Your task to perform on an android device: Open settings Image 0: 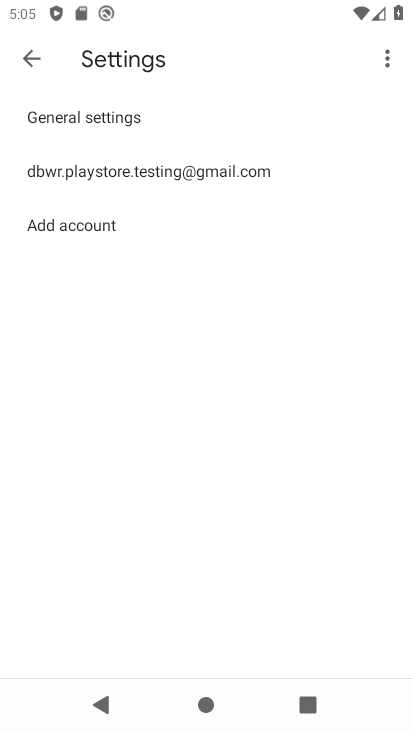
Step 0: press home button
Your task to perform on an android device: Open settings Image 1: 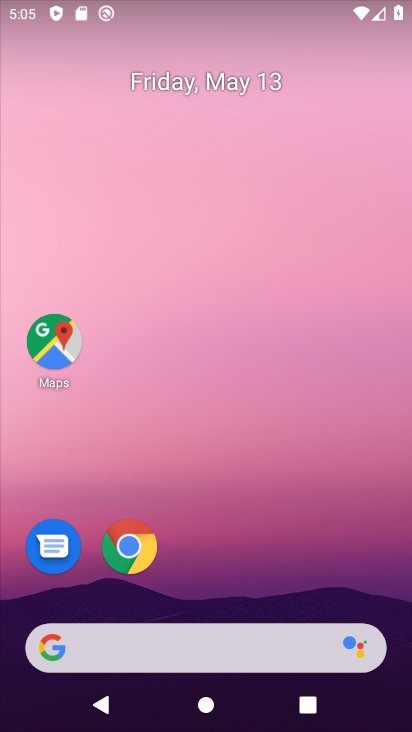
Step 1: drag from (214, 619) to (288, 177)
Your task to perform on an android device: Open settings Image 2: 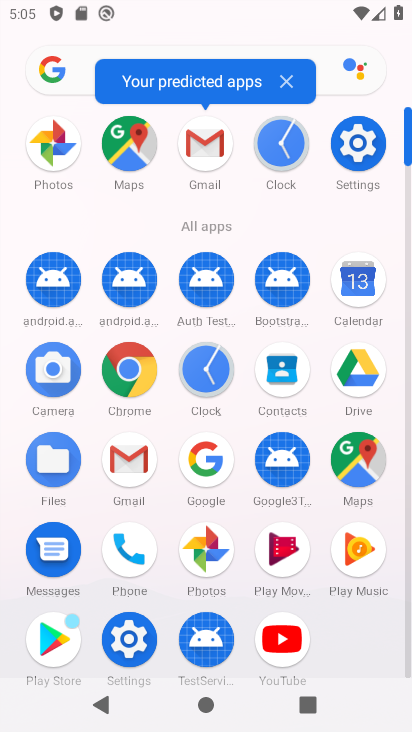
Step 2: click (140, 645)
Your task to perform on an android device: Open settings Image 3: 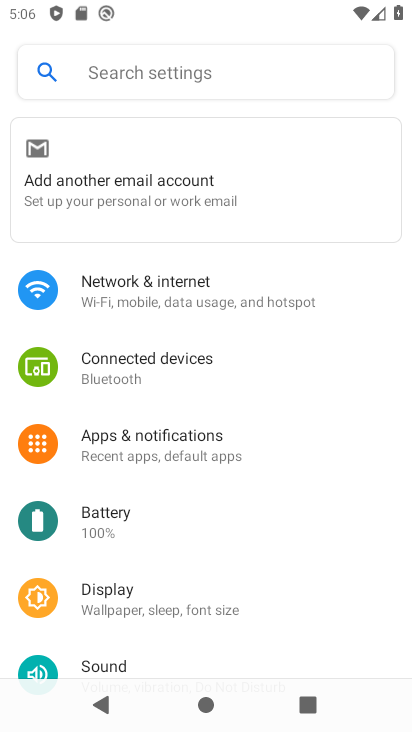
Step 3: task complete